Your task to perform on an android device: visit the assistant section in the google photos Image 0: 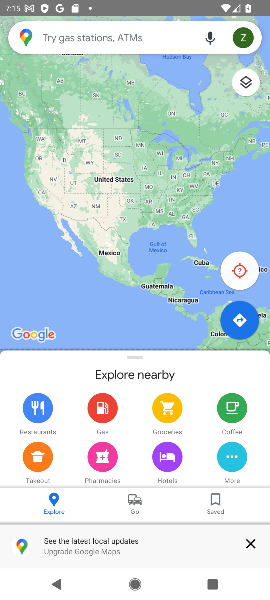
Step 0: press home button
Your task to perform on an android device: visit the assistant section in the google photos Image 1: 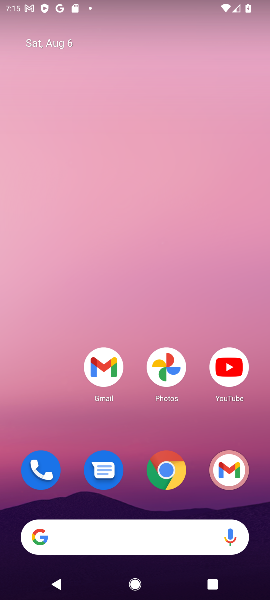
Step 1: drag from (168, 451) to (226, 35)
Your task to perform on an android device: visit the assistant section in the google photos Image 2: 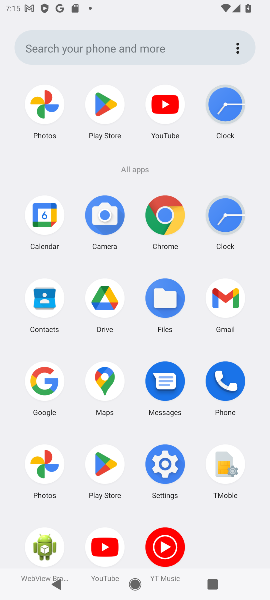
Step 2: click (53, 463)
Your task to perform on an android device: visit the assistant section in the google photos Image 3: 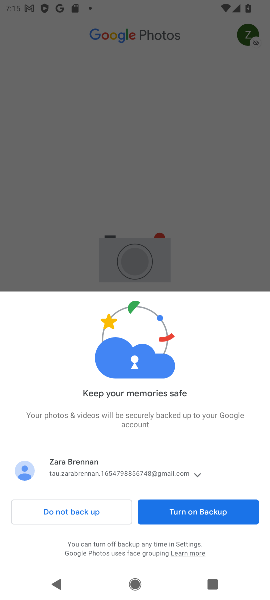
Step 3: click (179, 524)
Your task to perform on an android device: visit the assistant section in the google photos Image 4: 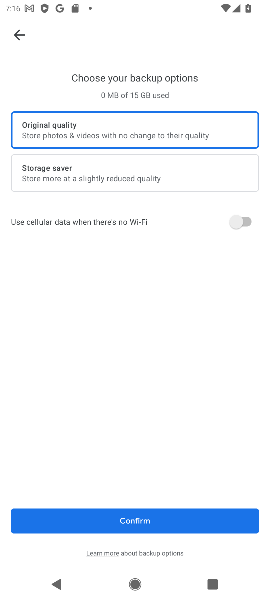
Step 4: click (172, 518)
Your task to perform on an android device: visit the assistant section in the google photos Image 5: 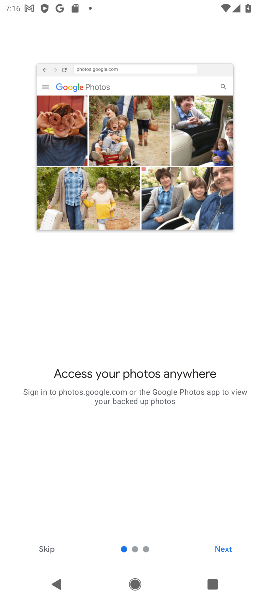
Step 5: click (232, 549)
Your task to perform on an android device: visit the assistant section in the google photos Image 6: 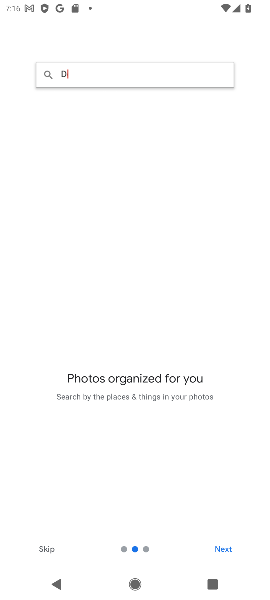
Step 6: click (232, 548)
Your task to perform on an android device: visit the assistant section in the google photos Image 7: 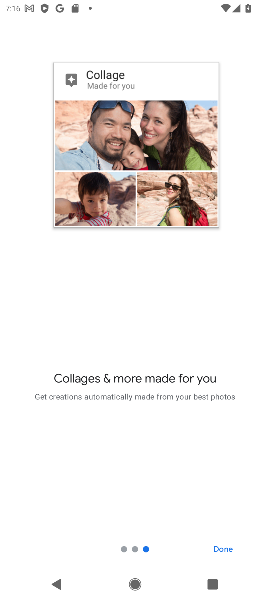
Step 7: click (225, 548)
Your task to perform on an android device: visit the assistant section in the google photos Image 8: 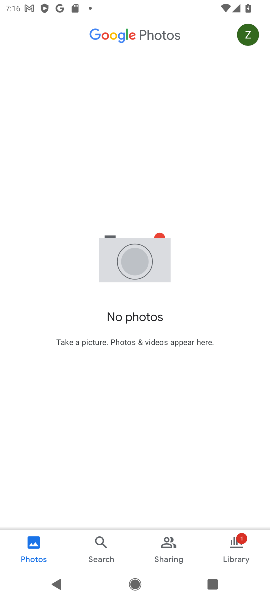
Step 8: click (250, 36)
Your task to perform on an android device: visit the assistant section in the google photos Image 9: 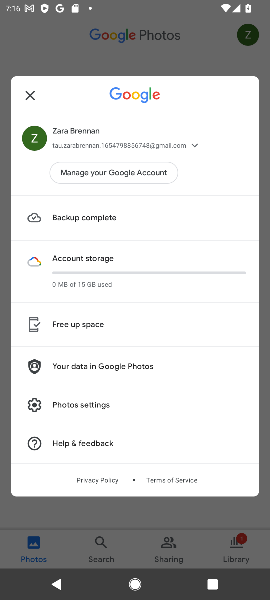
Step 9: task complete